Your task to perform on an android device: Search for seafood restaurants on Google Maps Image 0: 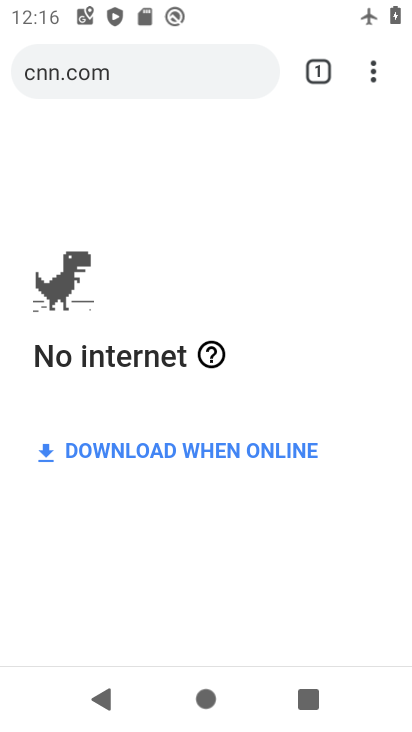
Step 0: drag from (224, 15) to (241, 417)
Your task to perform on an android device: Search for seafood restaurants on Google Maps Image 1: 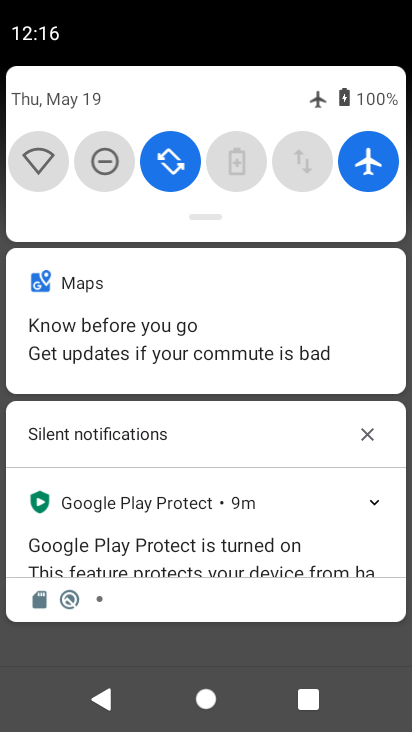
Step 1: click (362, 169)
Your task to perform on an android device: Search for seafood restaurants on Google Maps Image 2: 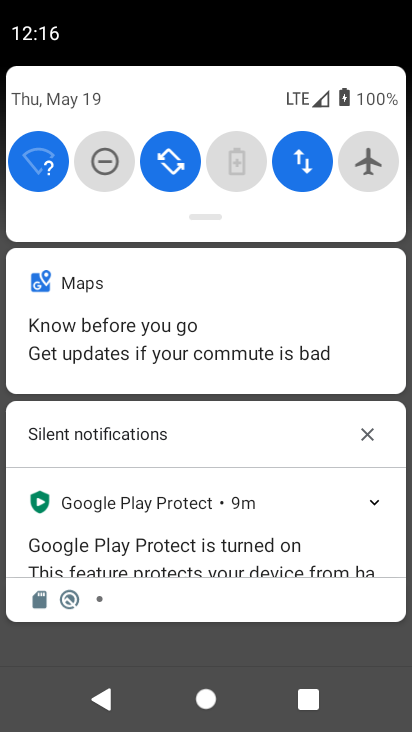
Step 2: drag from (194, 332) to (192, 297)
Your task to perform on an android device: Search for seafood restaurants on Google Maps Image 3: 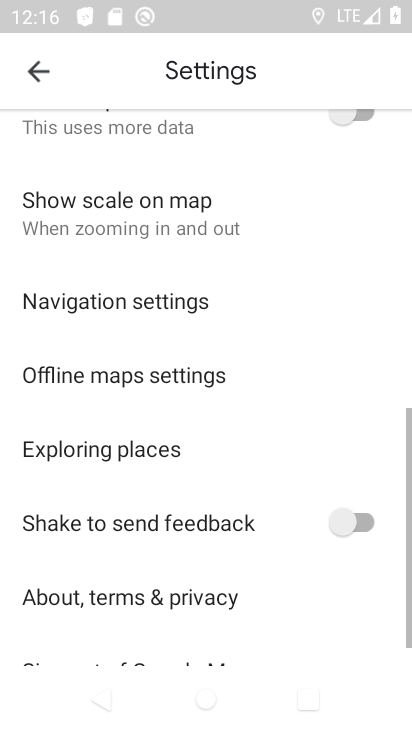
Step 3: drag from (279, 592) to (273, 261)
Your task to perform on an android device: Search for seafood restaurants on Google Maps Image 4: 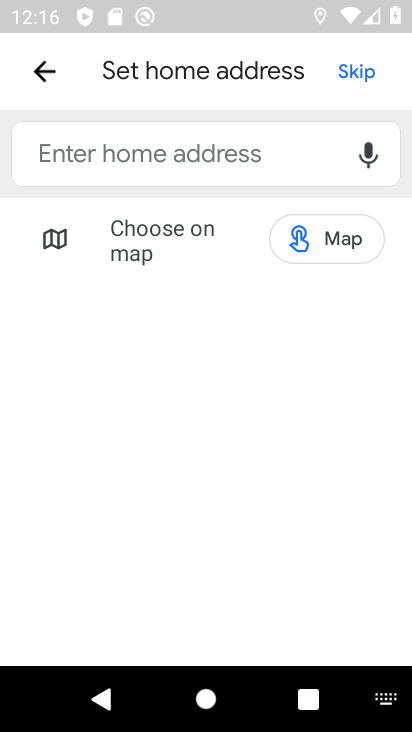
Step 4: click (35, 72)
Your task to perform on an android device: Search for seafood restaurants on Google Maps Image 5: 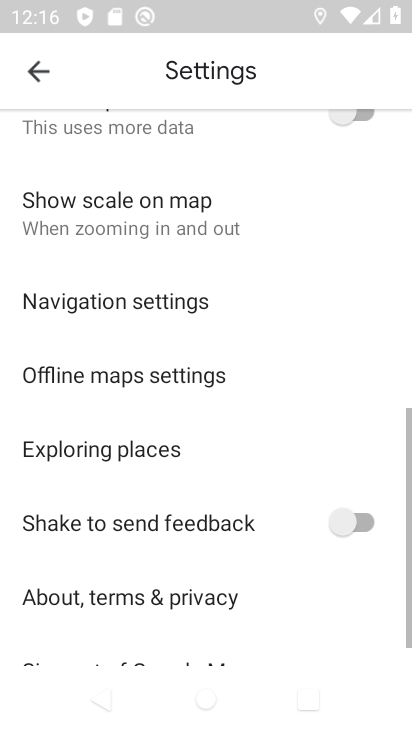
Step 5: click (35, 72)
Your task to perform on an android device: Search for seafood restaurants on Google Maps Image 6: 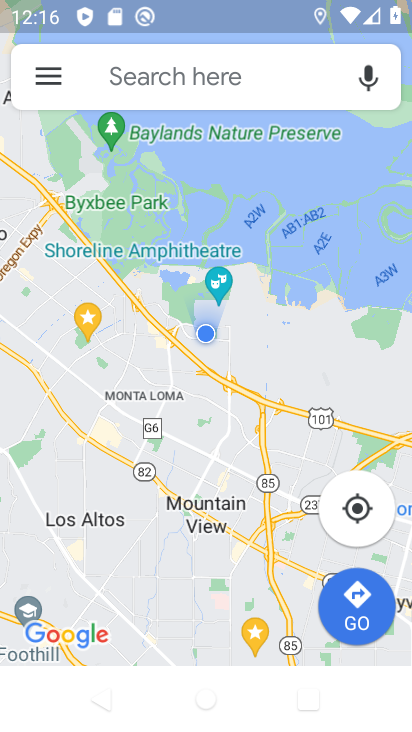
Step 6: click (191, 87)
Your task to perform on an android device: Search for seafood restaurants on Google Maps Image 7: 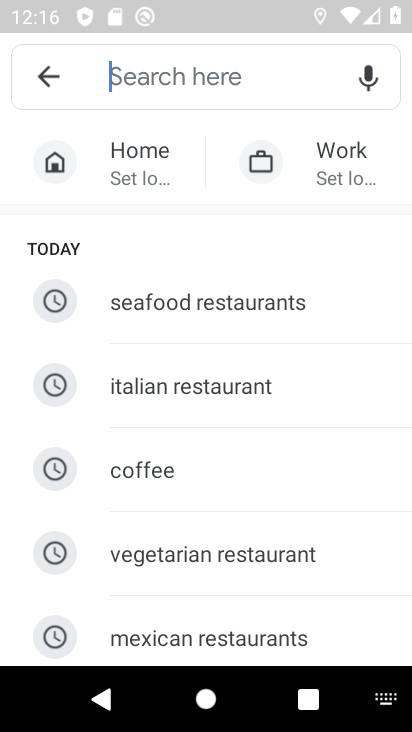
Step 7: drag from (206, 566) to (206, 352)
Your task to perform on an android device: Search for seafood restaurants on Google Maps Image 8: 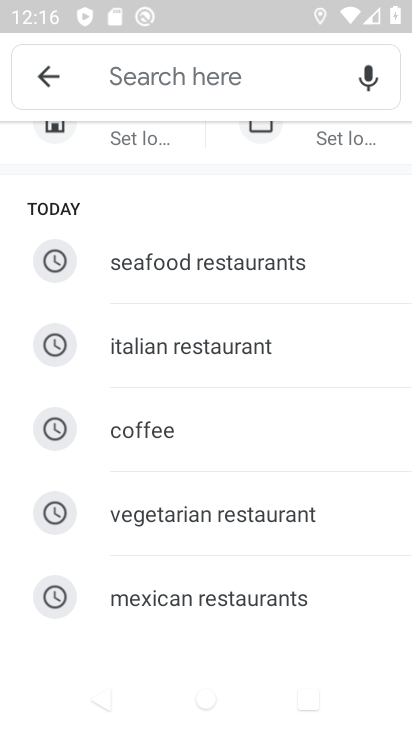
Step 8: click (195, 252)
Your task to perform on an android device: Search for seafood restaurants on Google Maps Image 9: 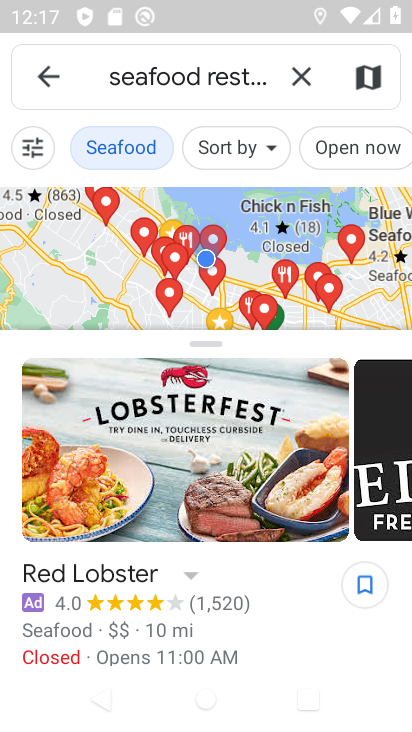
Step 9: task complete